Your task to perform on an android device: What's on my calendar today? Image 0: 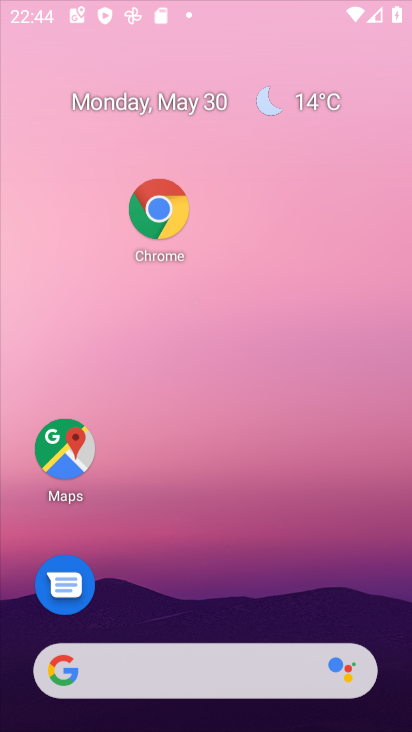
Step 0: drag from (261, 430) to (286, 216)
Your task to perform on an android device: What's on my calendar today? Image 1: 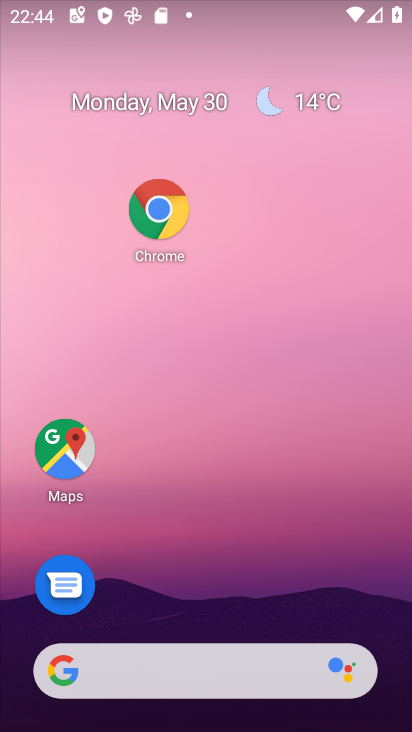
Step 1: drag from (183, 563) to (219, 76)
Your task to perform on an android device: What's on my calendar today? Image 2: 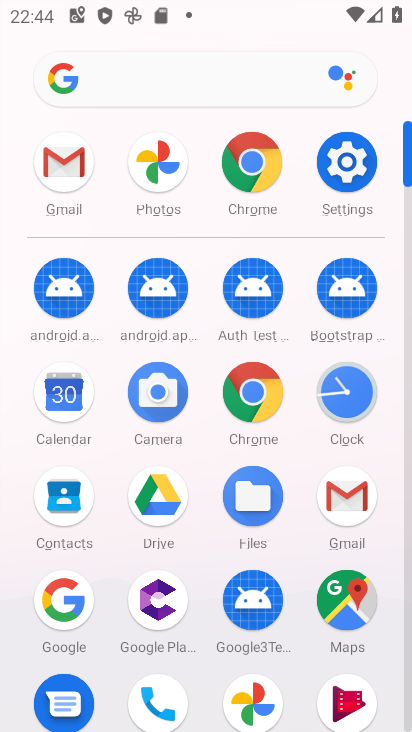
Step 2: click (71, 403)
Your task to perform on an android device: What's on my calendar today? Image 3: 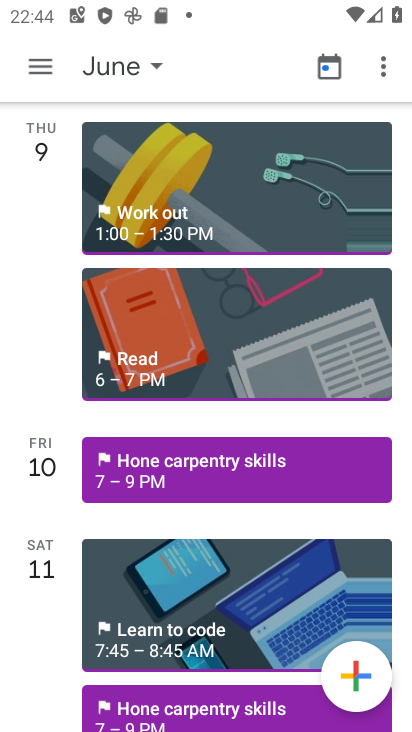
Step 3: click (132, 51)
Your task to perform on an android device: What's on my calendar today? Image 4: 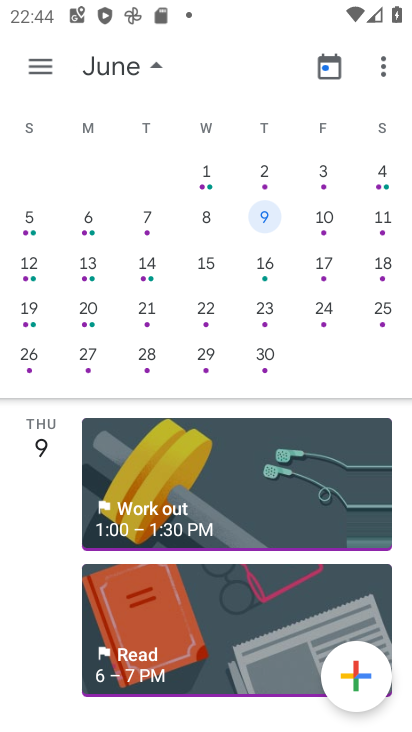
Step 4: drag from (68, 323) to (387, 179)
Your task to perform on an android device: What's on my calendar today? Image 5: 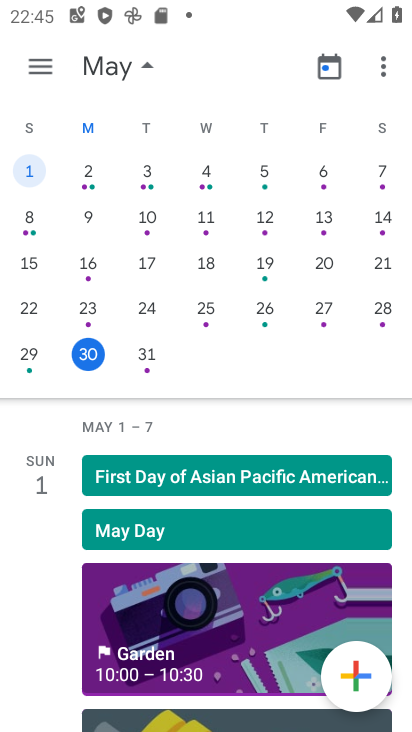
Step 5: click (97, 346)
Your task to perform on an android device: What's on my calendar today? Image 6: 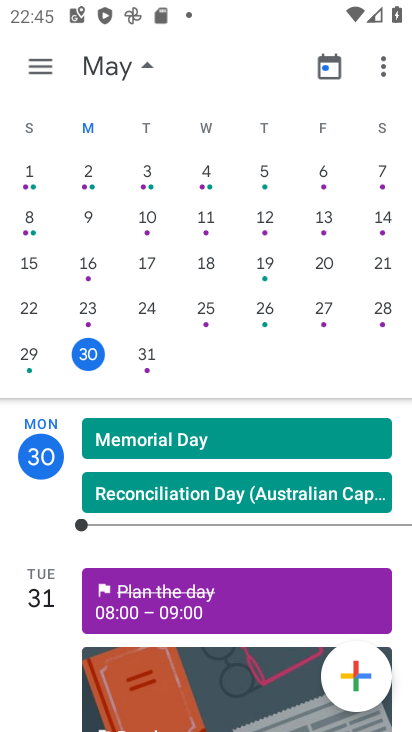
Step 6: task complete